Your task to perform on an android device: Open Wikipedia Image 0: 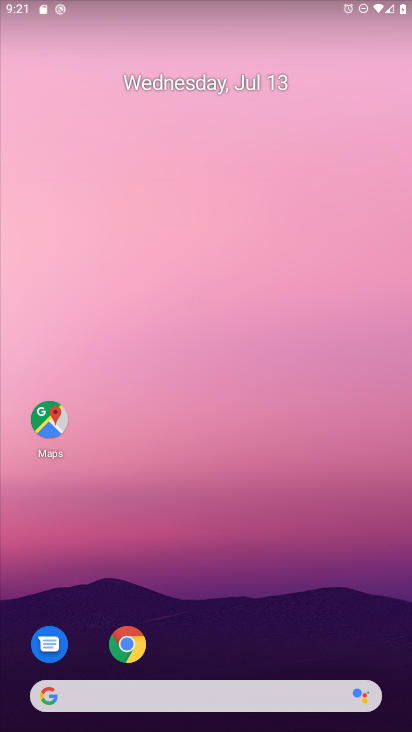
Step 0: press home button
Your task to perform on an android device: Open Wikipedia Image 1: 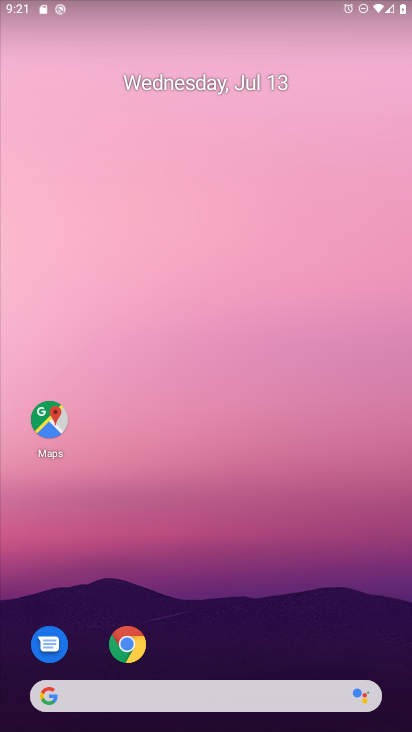
Step 1: click (47, 696)
Your task to perform on an android device: Open Wikipedia Image 2: 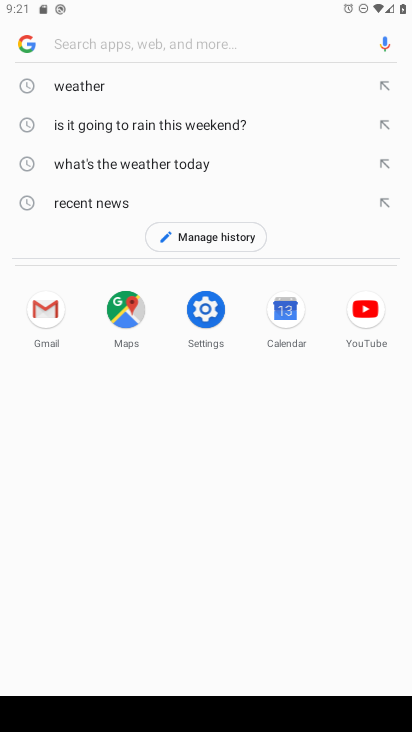
Step 2: type "Wikipedia"
Your task to perform on an android device: Open Wikipedia Image 3: 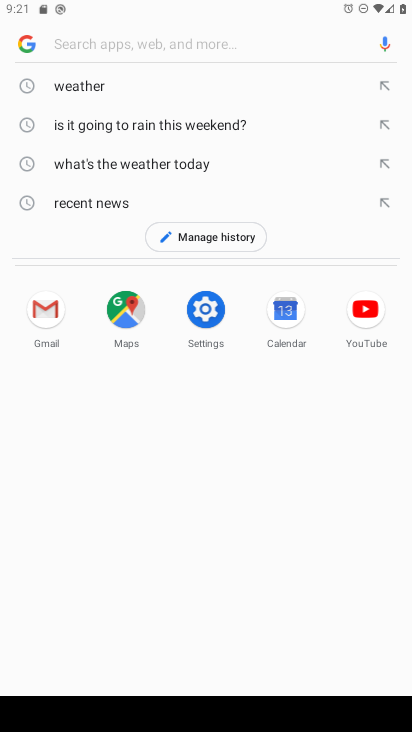
Step 3: click (64, 42)
Your task to perform on an android device: Open Wikipedia Image 4: 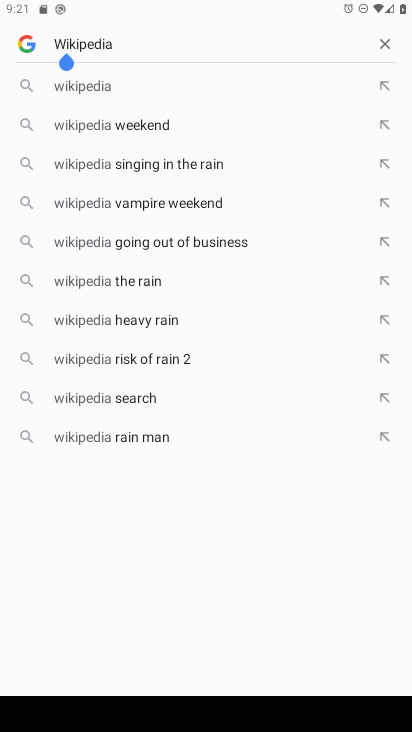
Step 4: press enter
Your task to perform on an android device: Open Wikipedia Image 5: 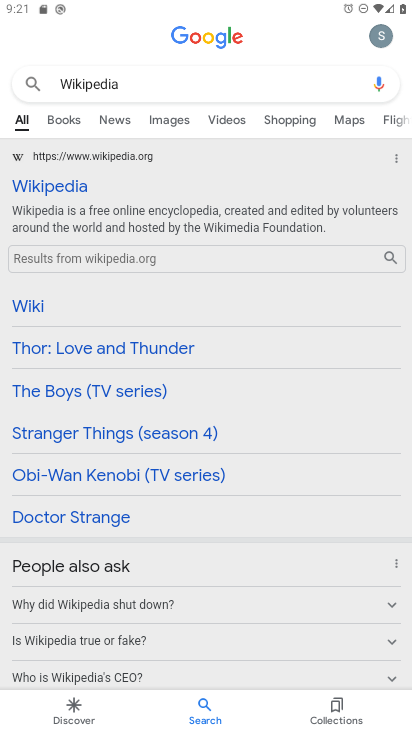
Step 5: click (70, 179)
Your task to perform on an android device: Open Wikipedia Image 6: 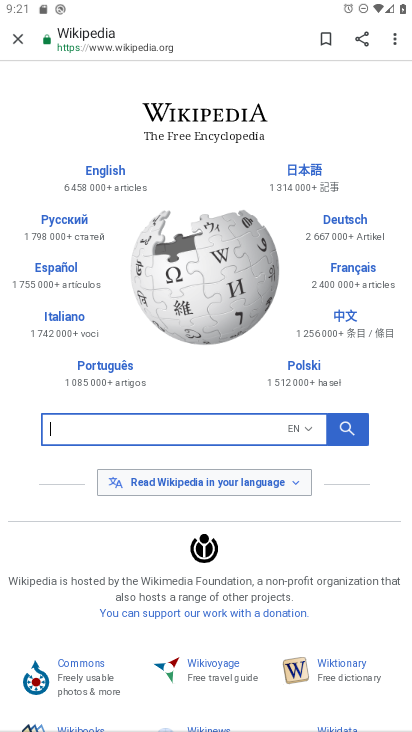
Step 6: task complete